Your task to perform on an android device: open a bookmark in the chrome app Image 0: 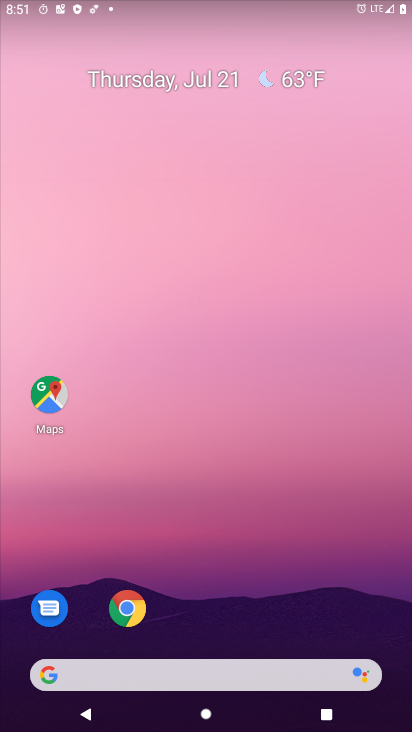
Step 0: press home button
Your task to perform on an android device: open a bookmark in the chrome app Image 1: 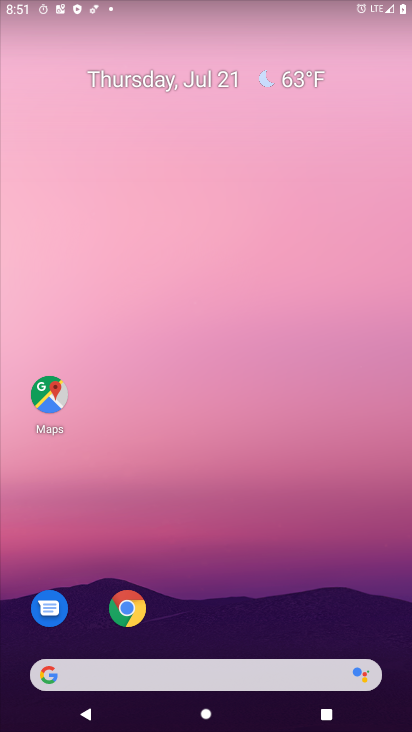
Step 1: drag from (283, 641) to (367, 2)
Your task to perform on an android device: open a bookmark in the chrome app Image 2: 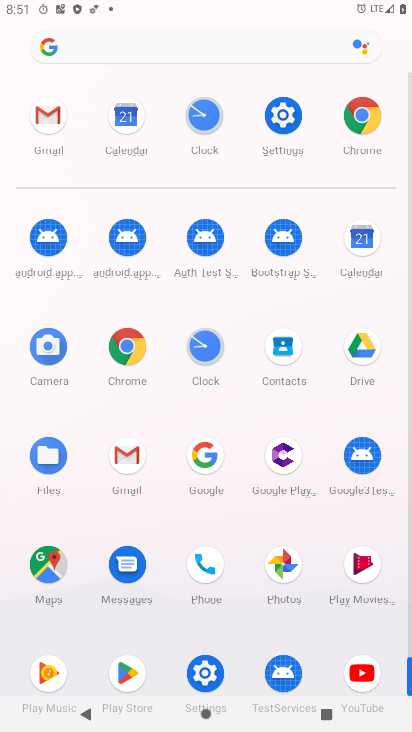
Step 2: click (367, 125)
Your task to perform on an android device: open a bookmark in the chrome app Image 3: 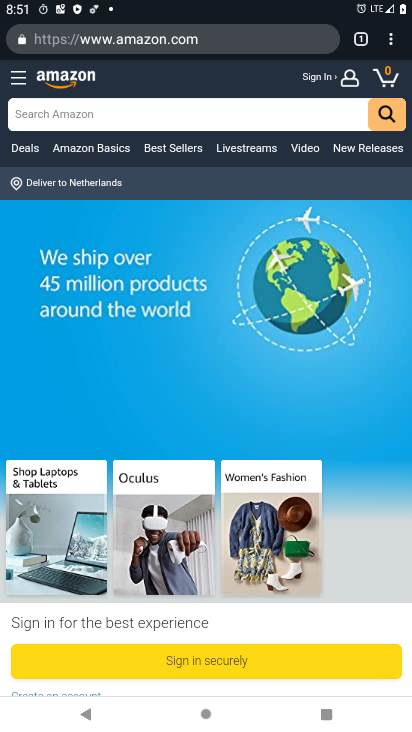
Step 3: task complete